Your task to perform on an android device: uninstall "Facebook Lite" Image 0: 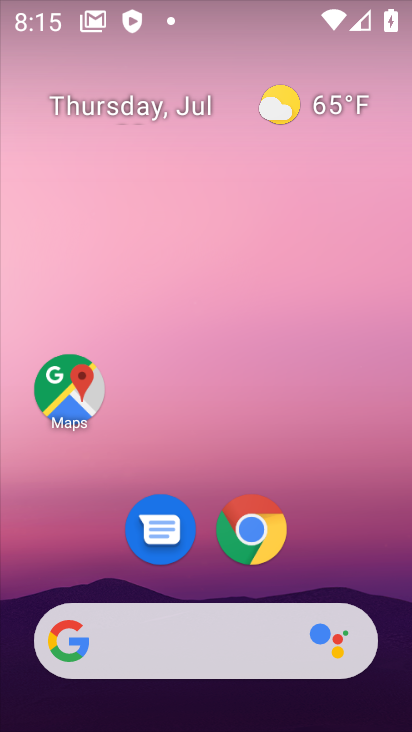
Step 0: drag from (313, 569) to (321, 2)
Your task to perform on an android device: uninstall "Facebook Lite" Image 1: 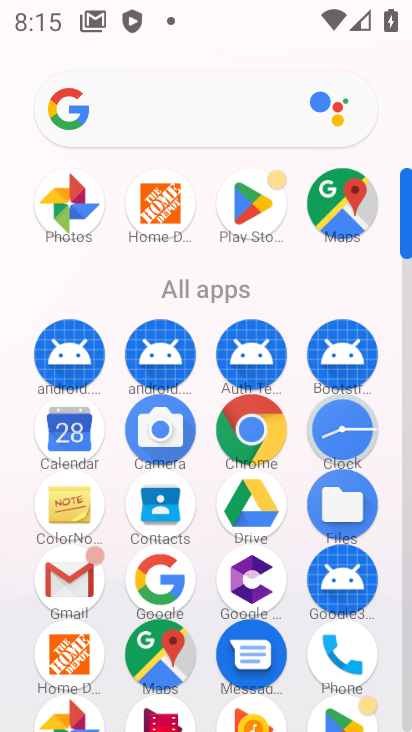
Step 1: drag from (388, 509) to (382, 390)
Your task to perform on an android device: uninstall "Facebook Lite" Image 2: 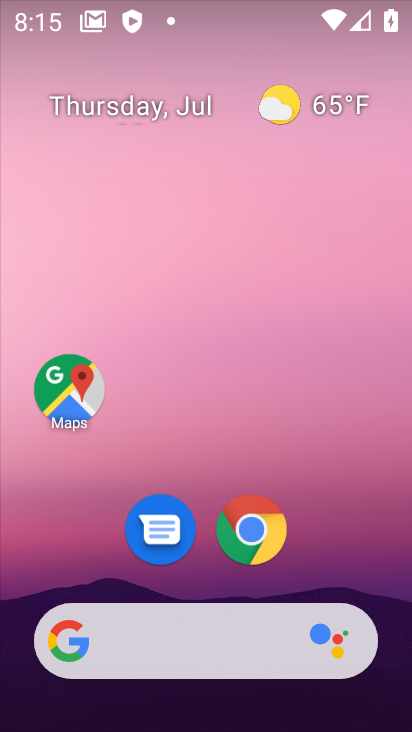
Step 2: drag from (330, 570) to (351, 1)
Your task to perform on an android device: uninstall "Facebook Lite" Image 3: 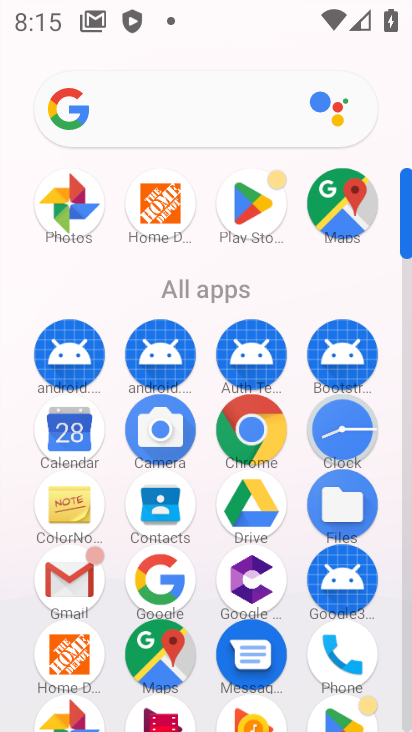
Step 3: click (406, 524)
Your task to perform on an android device: uninstall "Facebook Lite" Image 4: 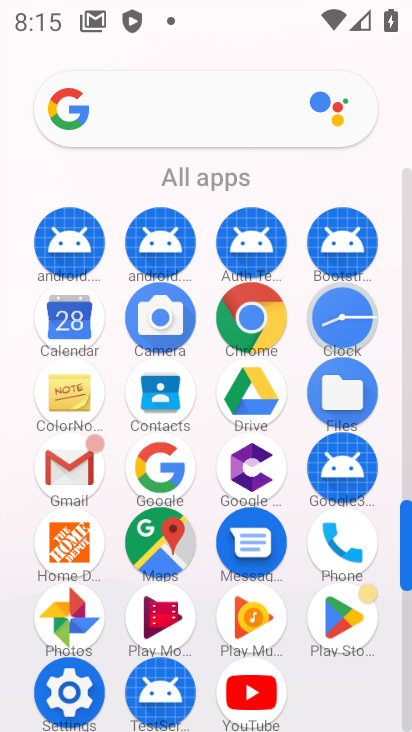
Step 4: drag from (411, 351) to (409, 308)
Your task to perform on an android device: uninstall "Facebook Lite" Image 5: 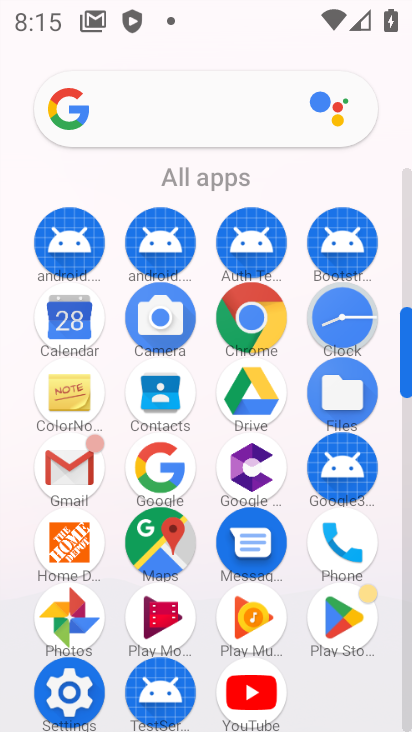
Step 5: click (405, 244)
Your task to perform on an android device: uninstall "Facebook Lite" Image 6: 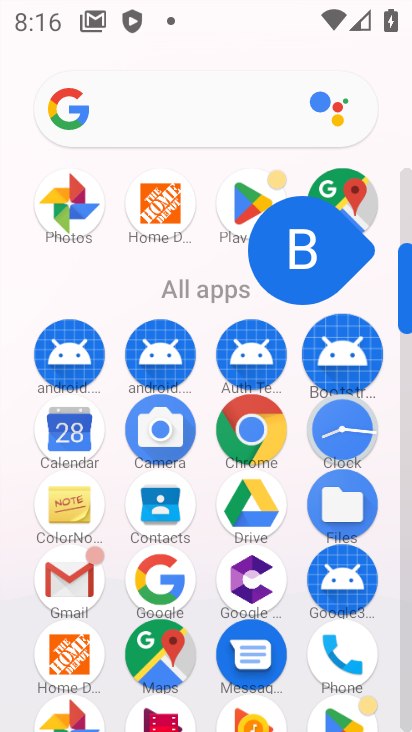
Step 6: task complete